Your task to perform on an android device: Open Google Chrome Image 0: 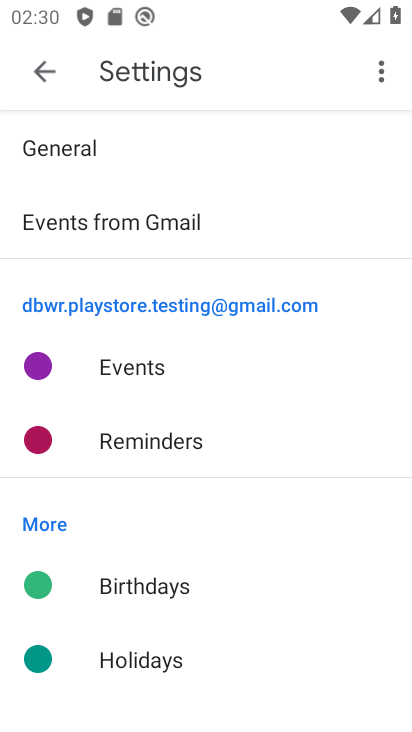
Step 0: press home button
Your task to perform on an android device: Open Google Chrome Image 1: 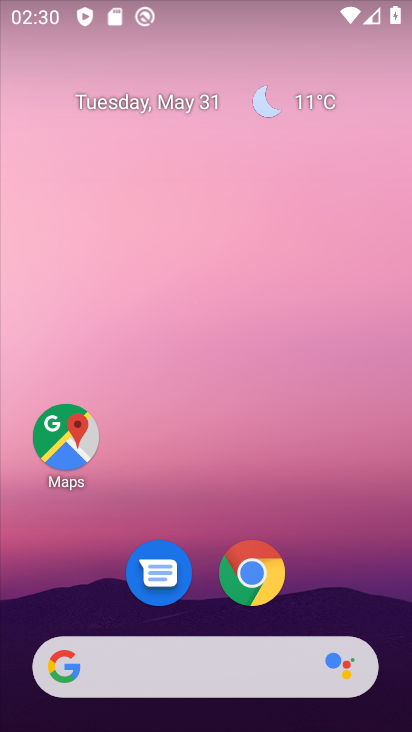
Step 1: click (262, 582)
Your task to perform on an android device: Open Google Chrome Image 2: 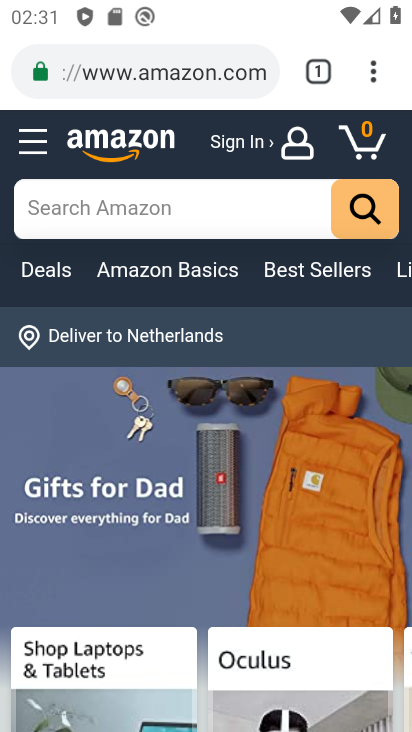
Step 2: task complete